Your task to perform on an android device: choose inbox layout in the gmail app Image 0: 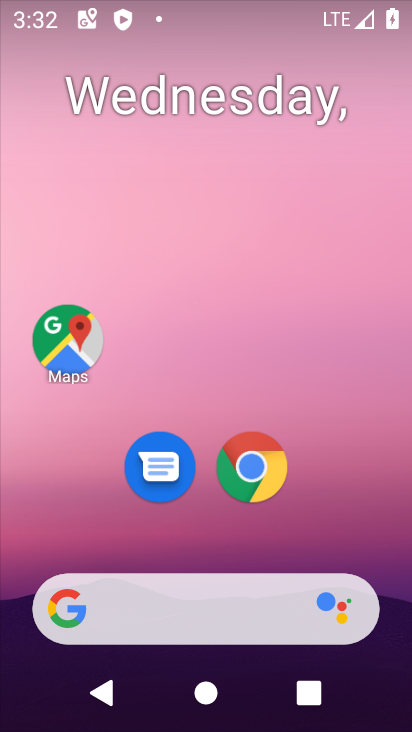
Step 0: drag from (390, 571) to (354, 113)
Your task to perform on an android device: choose inbox layout in the gmail app Image 1: 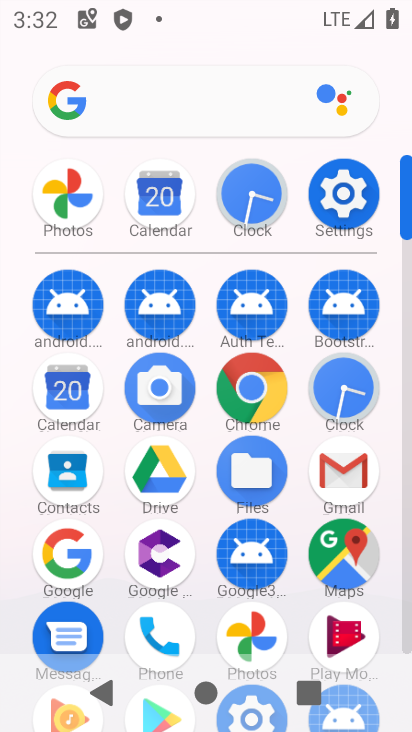
Step 1: click (405, 631)
Your task to perform on an android device: choose inbox layout in the gmail app Image 2: 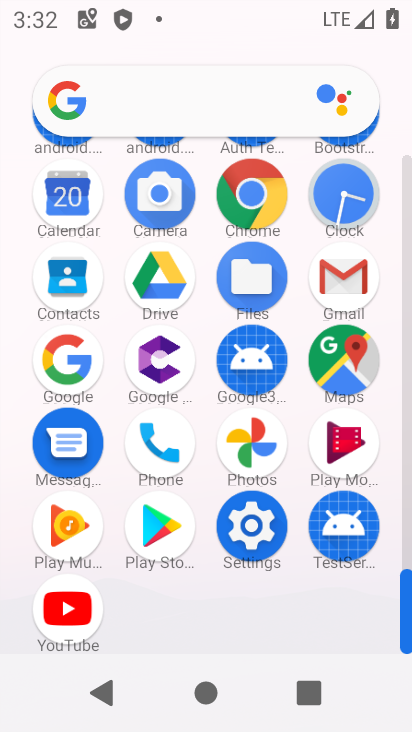
Step 2: click (340, 272)
Your task to perform on an android device: choose inbox layout in the gmail app Image 3: 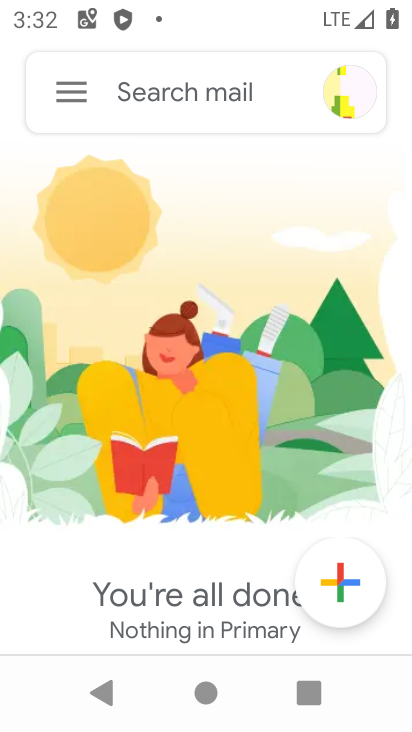
Step 3: click (63, 88)
Your task to perform on an android device: choose inbox layout in the gmail app Image 4: 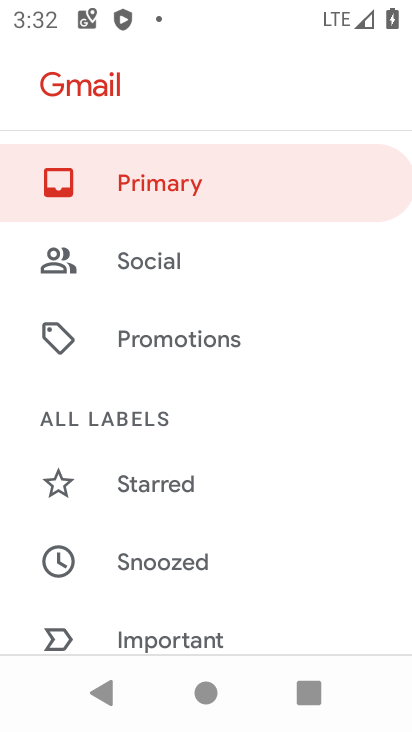
Step 4: drag from (266, 558) to (295, 244)
Your task to perform on an android device: choose inbox layout in the gmail app Image 5: 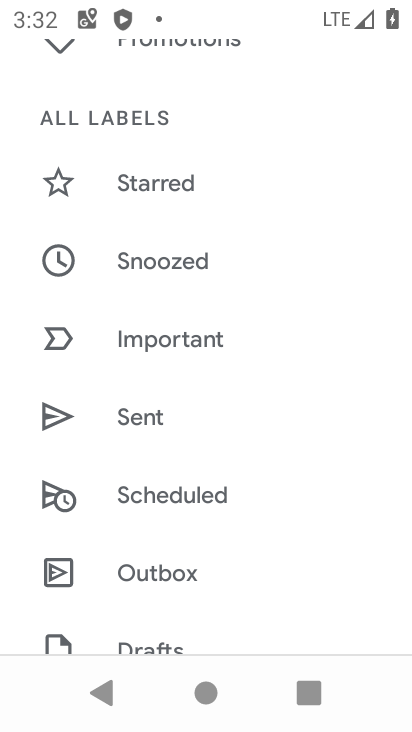
Step 5: drag from (264, 573) to (306, 204)
Your task to perform on an android device: choose inbox layout in the gmail app Image 6: 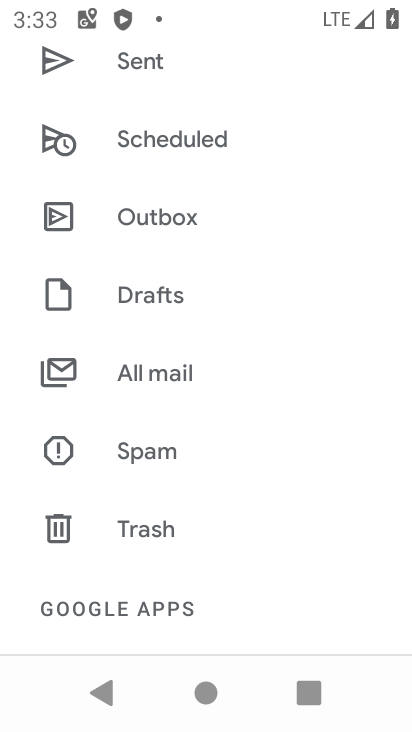
Step 6: drag from (251, 525) to (277, 221)
Your task to perform on an android device: choose inbox layout in the gmail app Image 7: 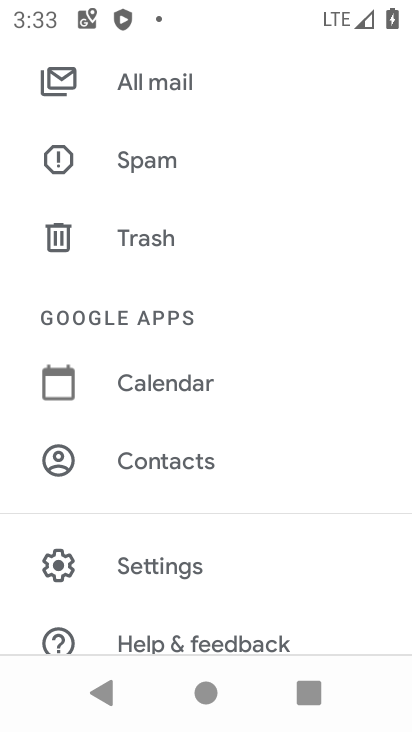
Step 7: drag from (278, 527) to (271, 246)
Your task to perform on an android device: choose inbox layout in the gmail app Image 8: 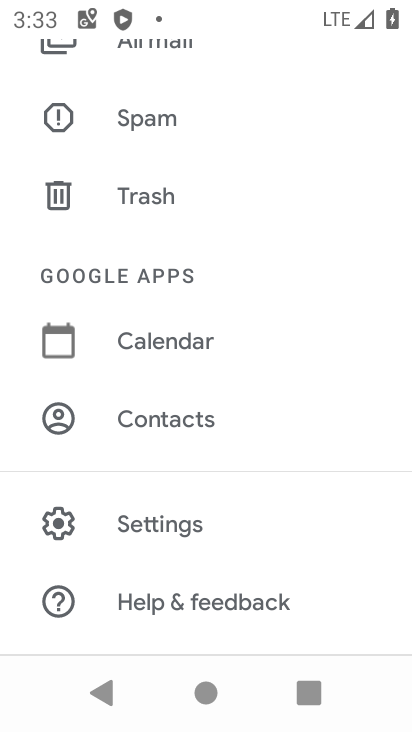
Step 8: click (164, 521)
Your task to perform on an android device: choose inbox layout in the gmail app Image 9: 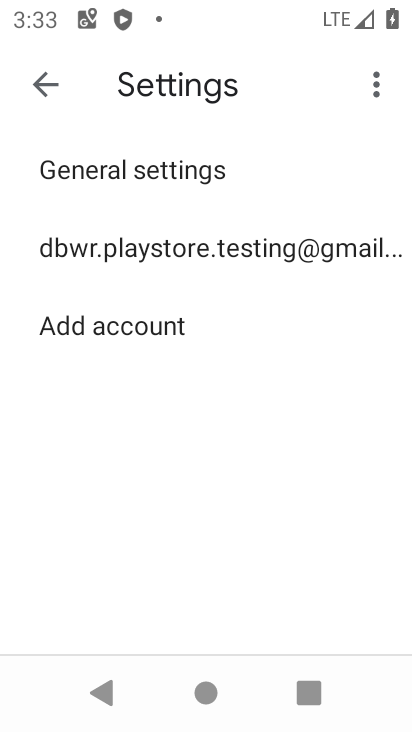
Step 9: click (153, 244)
Your task to perform on an android device: choose inbox layout in the gmail app Image 10: 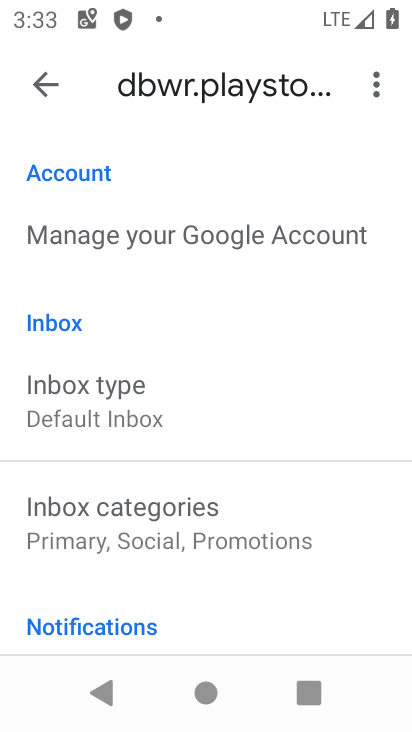
Step 10: click (87, 412)
Your task to perform on an android device: choose inbox layout in the gmail app Image 11: 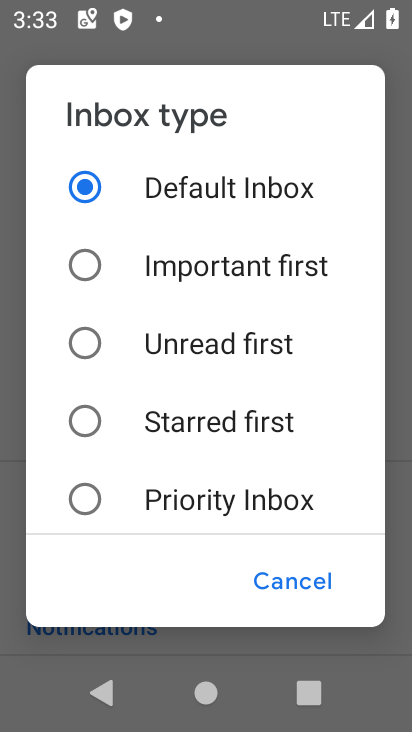
Step 11: click (85, 329)
Your task to perform on an android device: choose inbox layout in the gmail app Image 12: 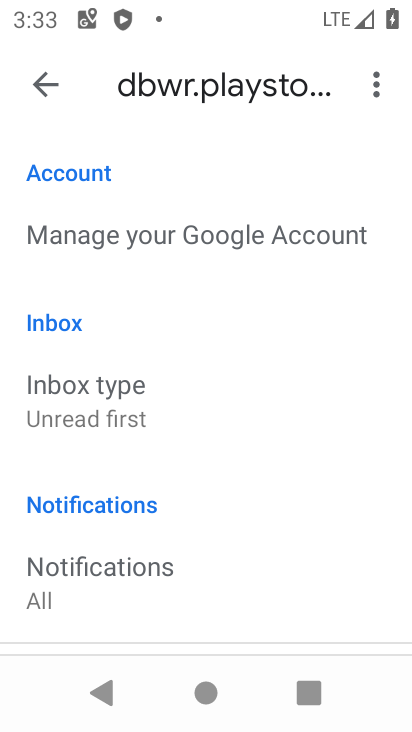
Step 12: task complete